Your task to perform on an android device: turn off translation in the chrome app Image 0: 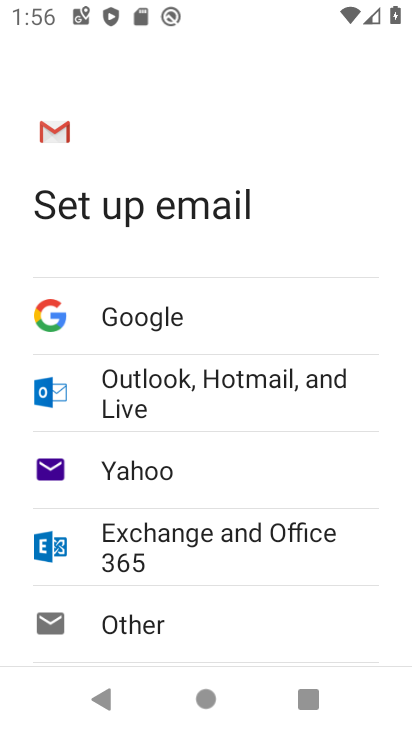
Step 0: press home button
Your task to perform on an android device: turn off translation in the chrome app Image 1: 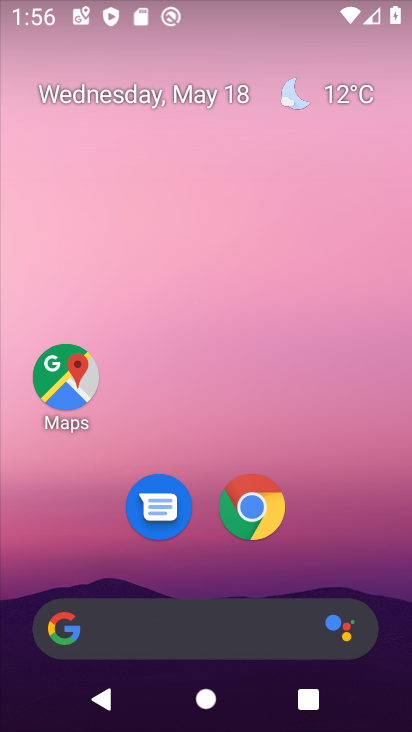
Step 1: click (266, 504)
Your task to perform on an android device: turn off translation in the chrome app Image 2: 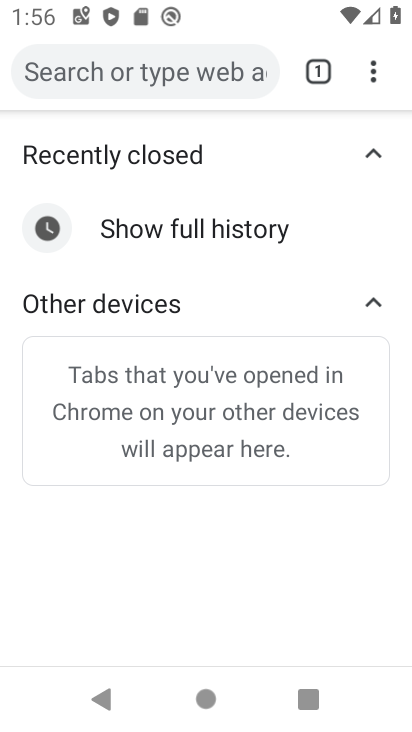
Step 2: click (374, 71)
Your task to perform on an android device: turn off translation in the chrome app Image 3: 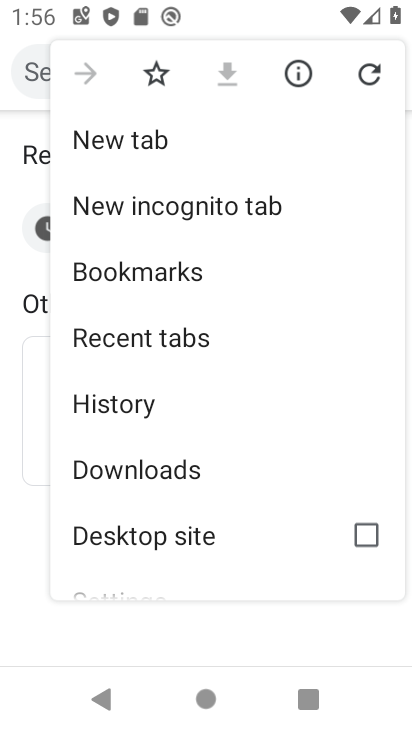
Step 3: drag from (290, 556) to (303, 239)
Your task to perform on an android device: turn off translation in the chrome app Image 4: 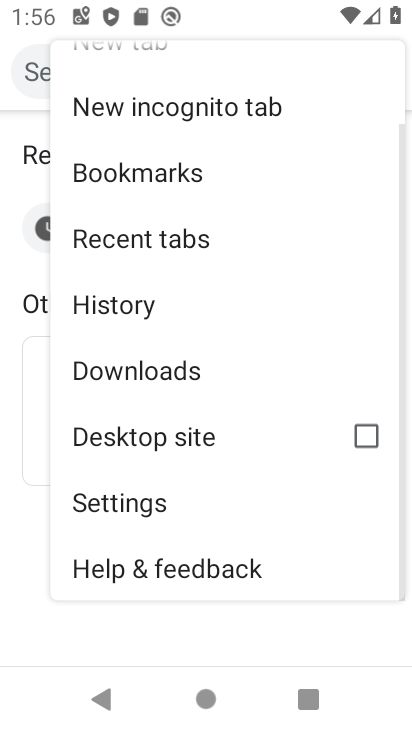
Step 4: click (105, 497)
Your task to perform on an android device: turn off translation in the chrome app Image 5: 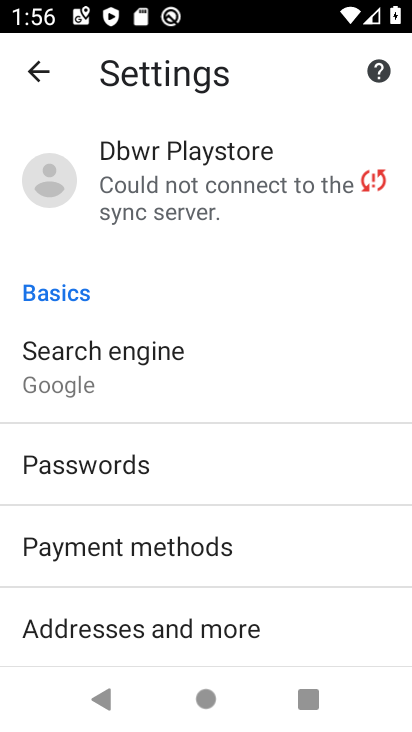
Step 5: drag from (325, 645) to (348, 323)
Your task to perform on an android device: turn off translation in the chrome app Image 6: 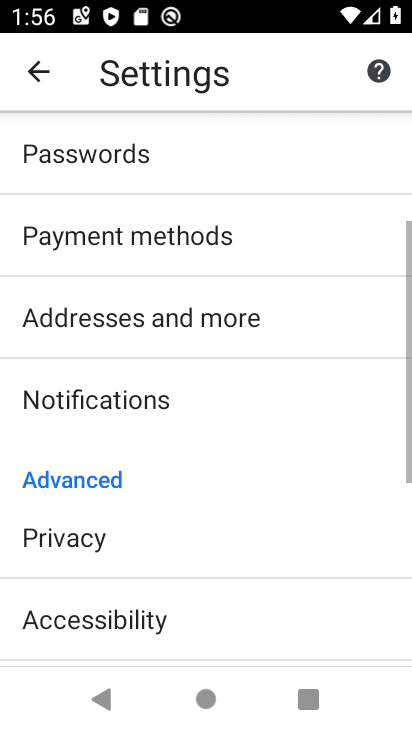
Step 6: drag from (241, 618) to (272, 397)
Your task to perform on an android device: turn off translation in the chrome app Image 7: 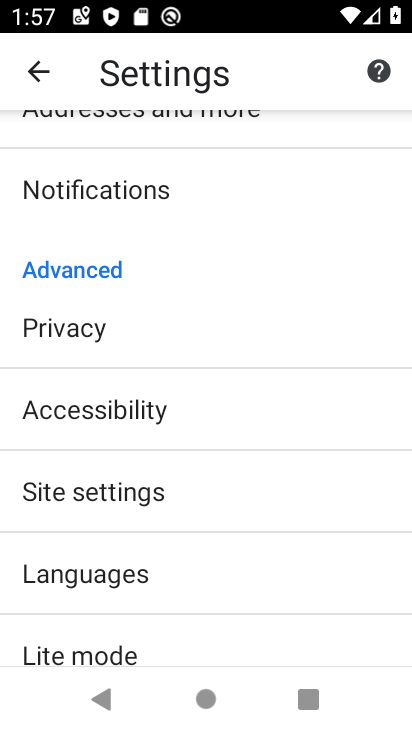
Step 7: click (106, 583)
Your task to perform on an android device: turn off translation in the chrome app Image 8: 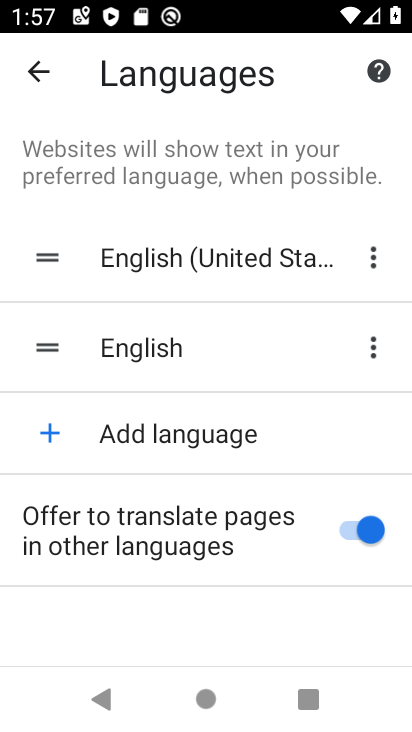
Step 8: click (333, 530)
Your task to perform on an android device: turn off translation in the chrome app Image 9: 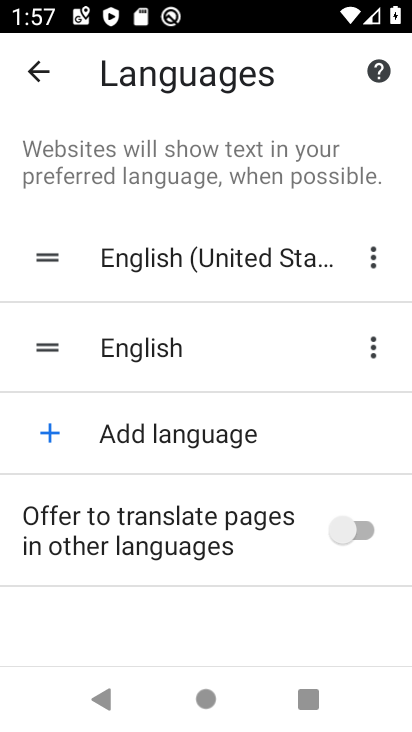
Step 9: task complete